Your task to perform on an android device: turn on data saver in the chrome app Image 0: 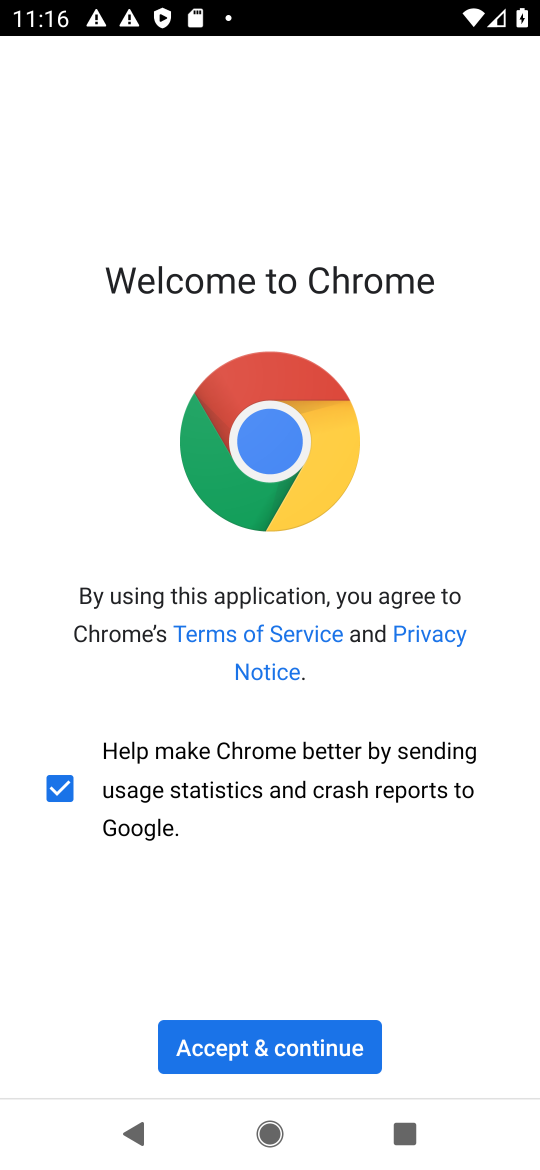
Step 0: press home button
Your task to perform on an android device: turn on data saver in the chrome app Image 1: 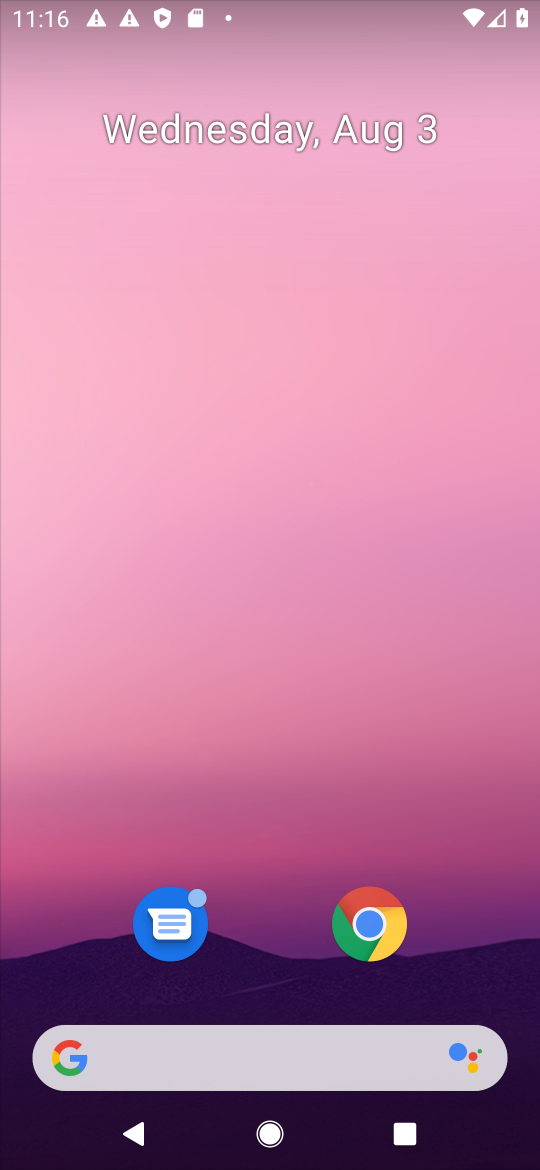
Step 1: click (363, 914)
Your task to perform on an android device: turn on data saver in the chrome app Image 2: 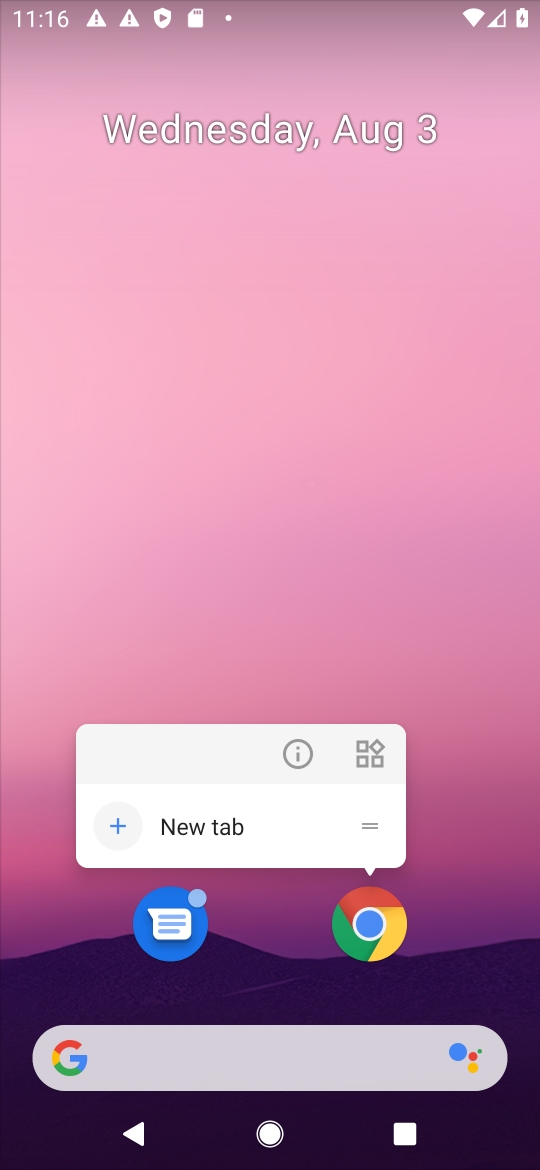
Step 2: click (363, 945)
Your task to perform on an android device: turn on data saver in the chrome app Image 3: 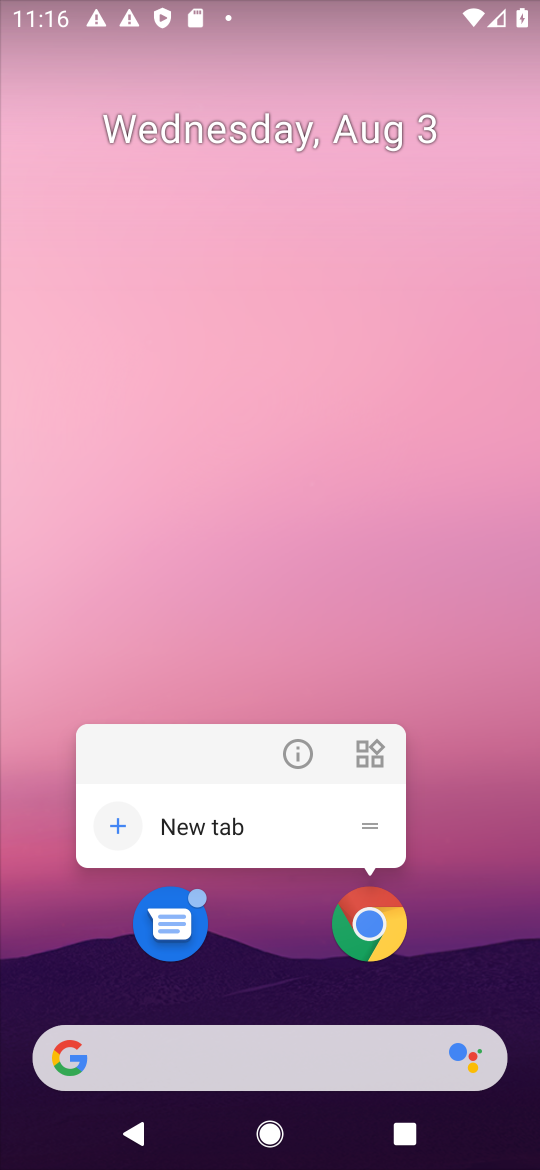
Step 3: click (366, 930)
Your task to perform on an android device: turn on data saver in the chrome app Image 4: 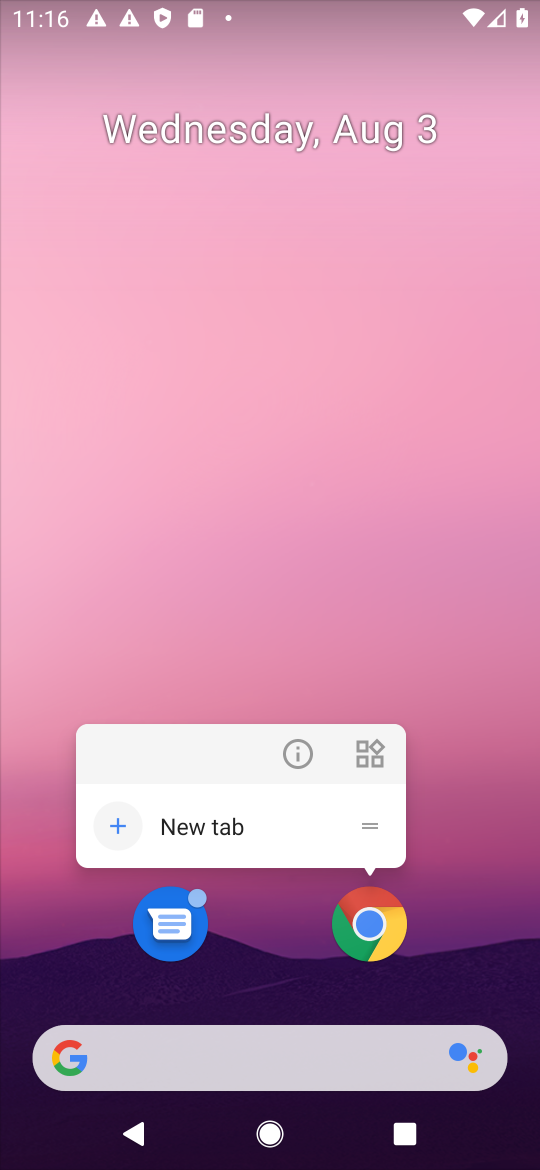
Step 4: click (386, 918)
Your task to perform on an android device: turn on data saver in the chrome app Image 5: 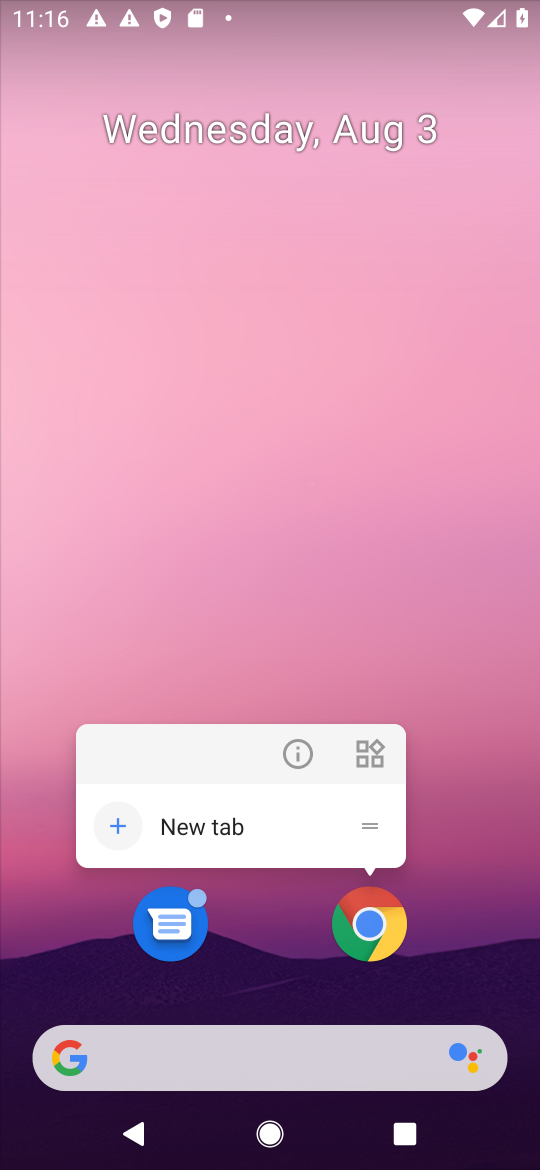
Step 5: click (374, 933)
Your task to perform on an android device: turn on data saver in the chrome app Image 6: 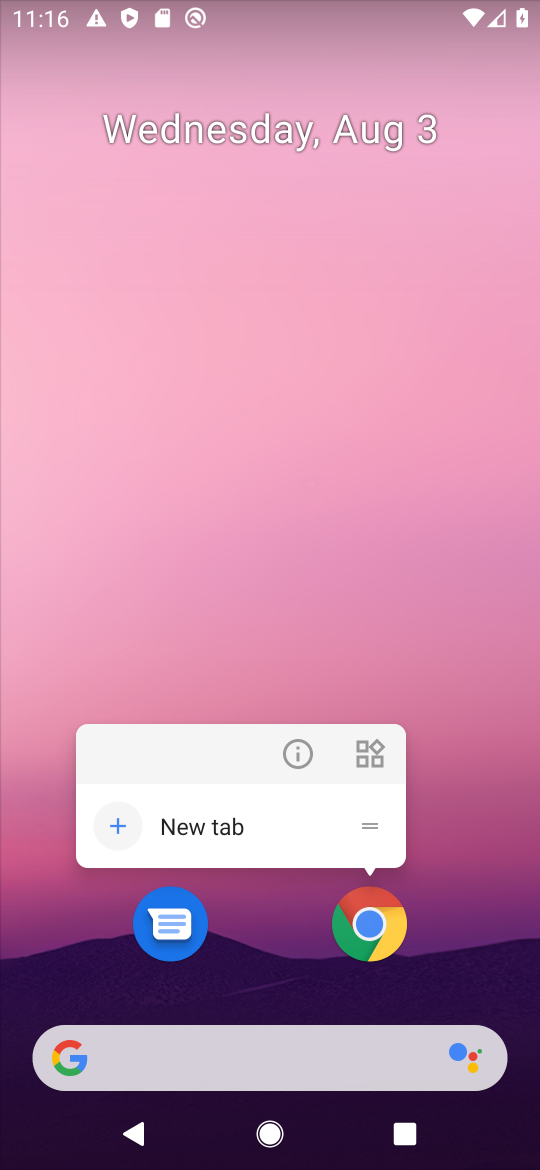
Step 6: task complete